Your task to perform on an android device: toggle javascript in the chrome app Image 0: 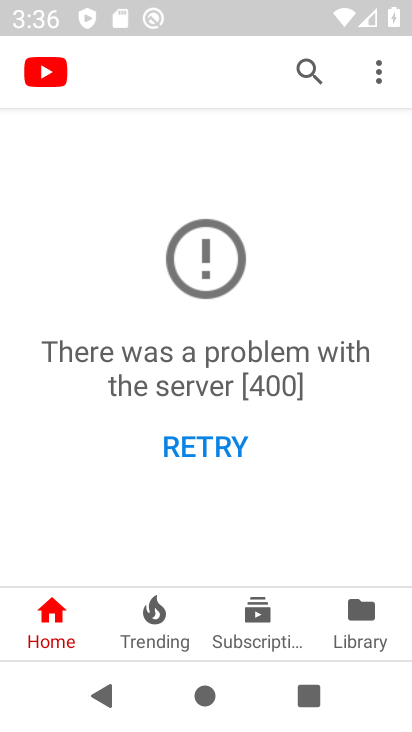
Step 0: press back button
Your task to perform on an android device: toggle javascript in the chrome app Image 1: 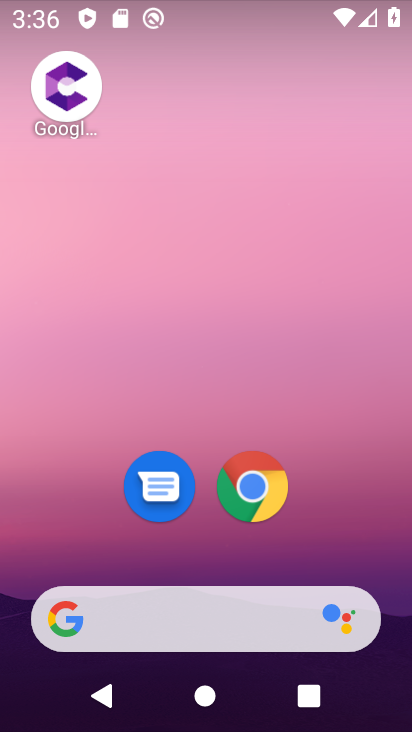
Step 1: click (253, 475)
Your task to perform on an android device: toggle javascript in the chrome app Image 2: 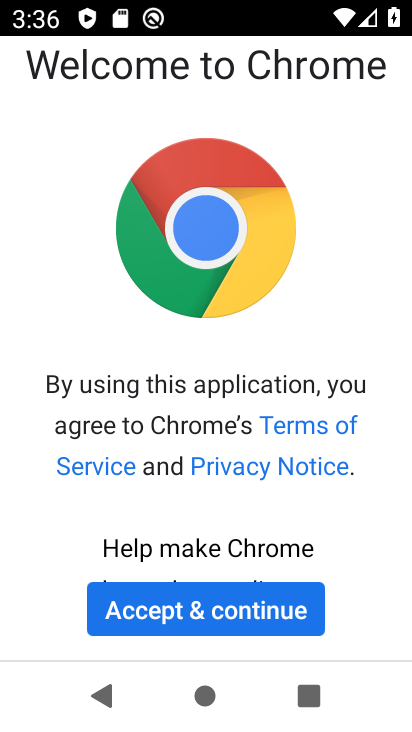
Step 2: click (219, 607)
Your task to perform on an android device: toggle javascript in the chrome app Image 3: 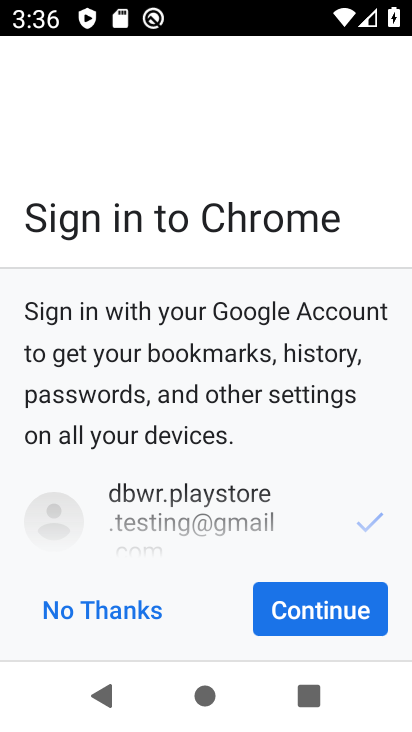
Step 3: click (321, 599)
Your task to perform on an android device: toggle javascript in the chrome app Image 4: 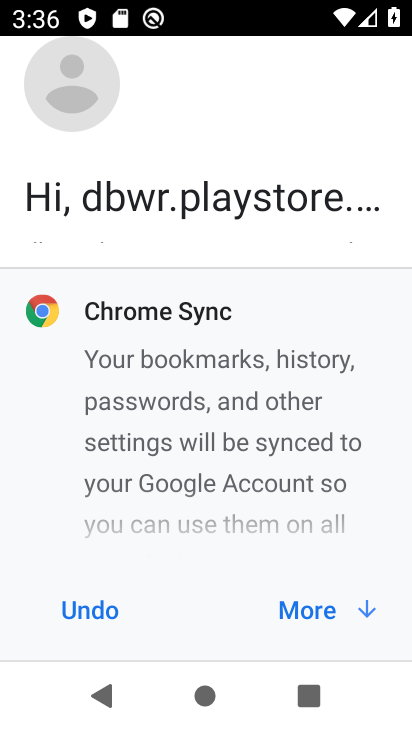
Step 4: click (317, 604)
Your task to perform on an android device: toggle javascript in the chrome app Image 5: 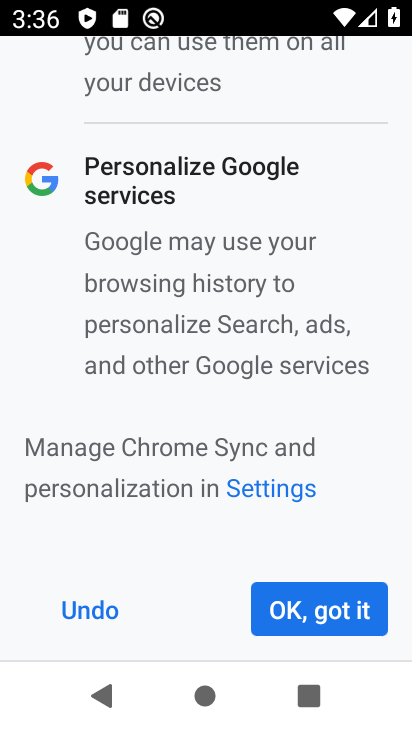
Step 5: click (317, 604)
Your task to perform on an android device: toggle javascript in the chrome app Image 6: 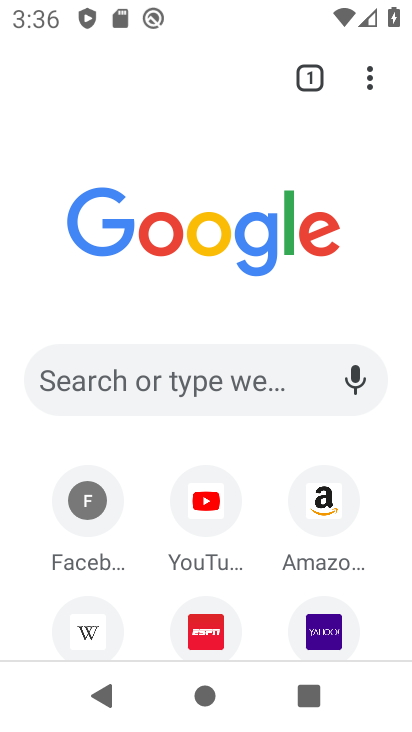
Step 6: drag from (370, 61) to (167, 545)
Your task to perform on an android device: toggle javascript in the chrome app Image 7: 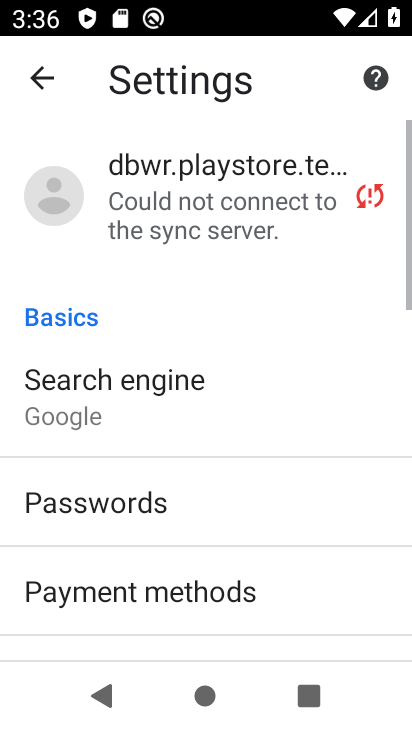
Step 7: drag from (207, 526) to (283, 124)
Your task to perform on an android device: toggle javascript in the chrome app Image 8: 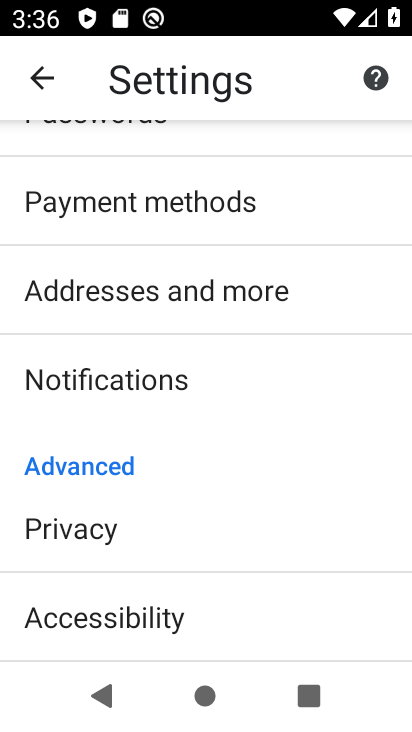
Step 8: drag from (226, 588) to (254, 202)
Your task to perform on an android device: toggle javascript in the chrome app Image 9: 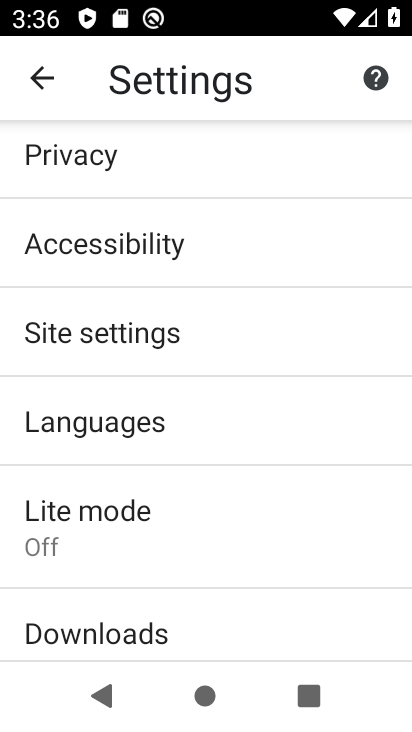
Step 9: drag from (183, 590) to (231, 208)
Your task to perform on an android device: toggle javascript in the chrome app Image 10: 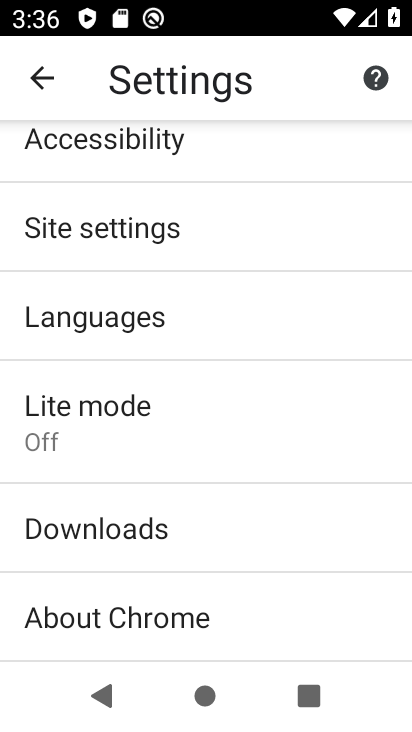
Step 10: click (194, 241)
Your task to perform on an android device: toggle javascript in the chrome app Image 11: 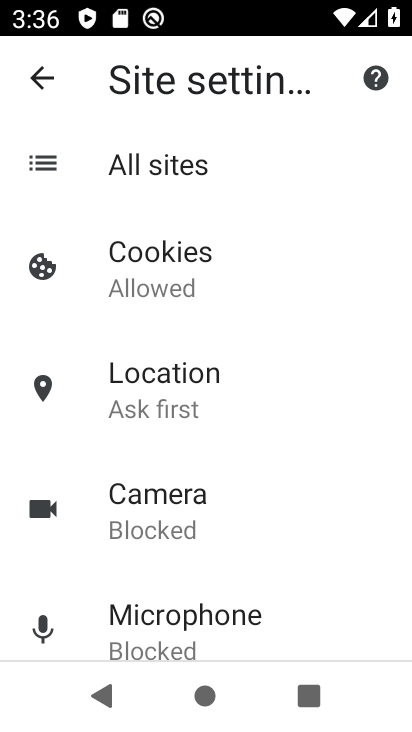
Step 11: drag from (208, 564) to (268, 134)
Your task to perform on an android device: toggle javascript in the chrome app Image 12: 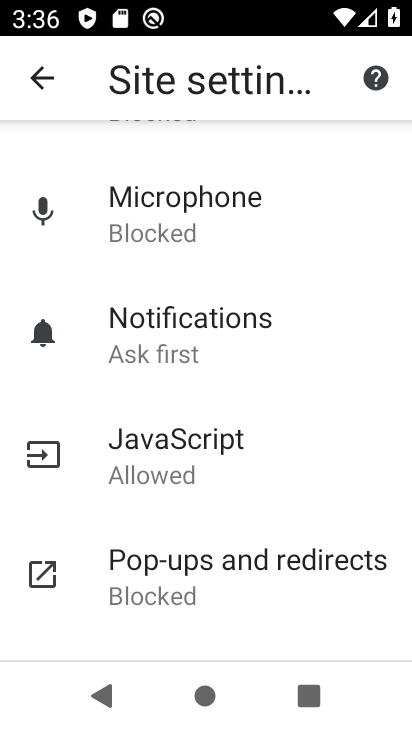
Step 12: drag from (238, 527) to (268, 262)
Your task to perform on an android device: toggle javascript in the chrome app Image 13: 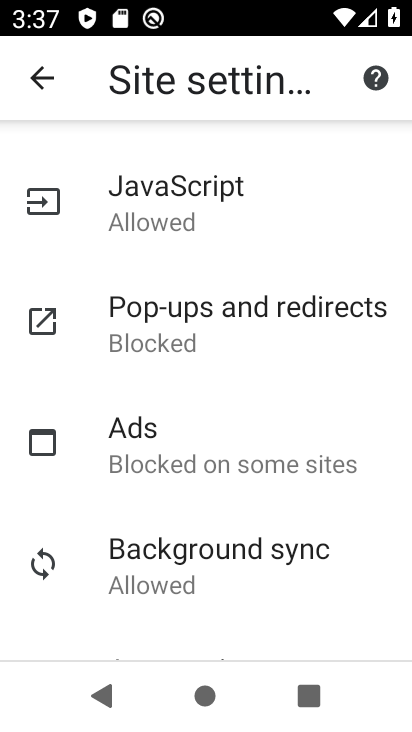
Step 13: drag from (258, 559) to (273, 224)
Your task to perform on an android device: toggle javascript in the chrome app Image 14: 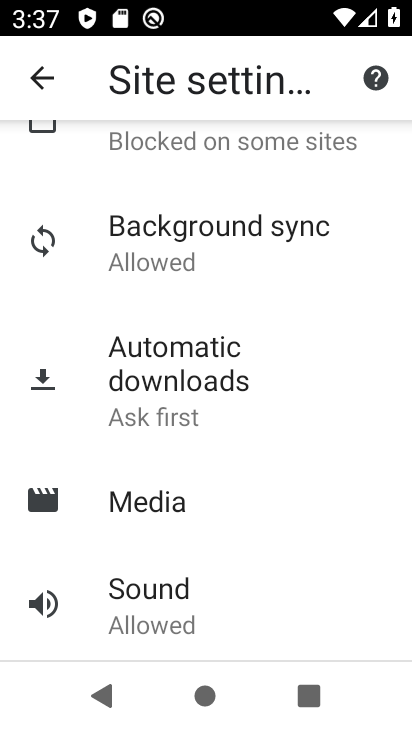
Step 14: drag from (225, 539) to (256, 244)
Your task to perform on an android device: toggle javascript in the chrome app Image 15: 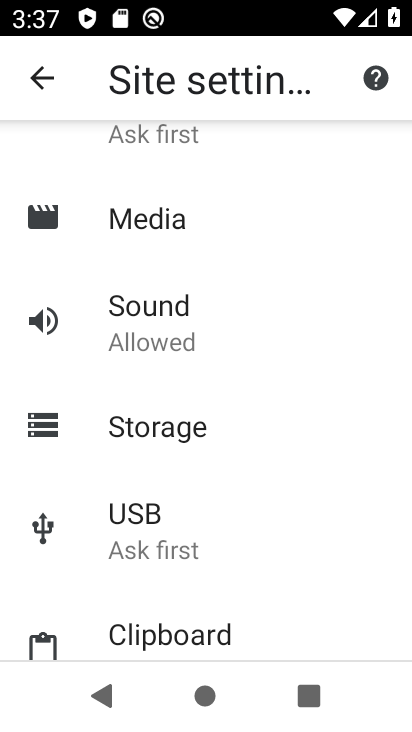
Step 15: drag from (188, 555) to (212, 159)
Your task to perform on an android device: toggle javascript in the chrome app Image 16: 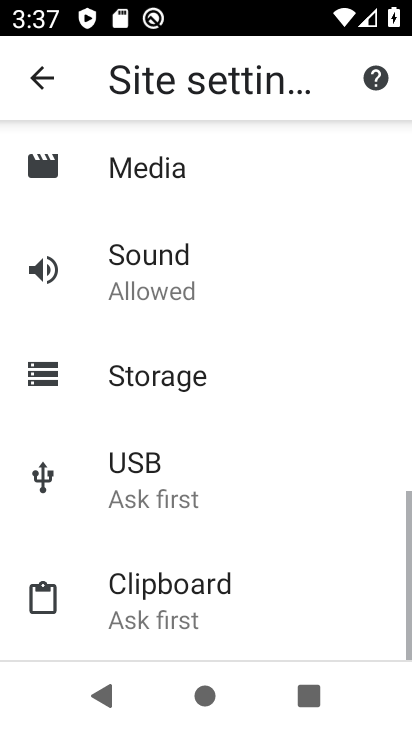
Step 16: drag from (213, 210) to (211, 562)
Your task to perform on an android device: toggle javascript in the chrome app Image 17: 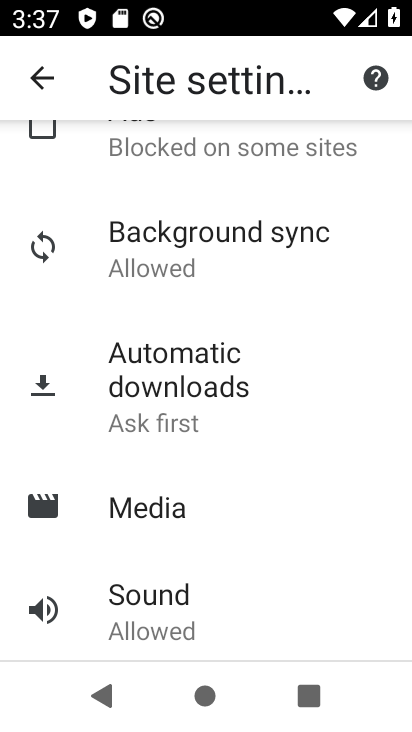
Step 17: drag from (270, 319) to (261, 574)
Your task to perform on an android device: toggle javascript in the chrome app Image 18: 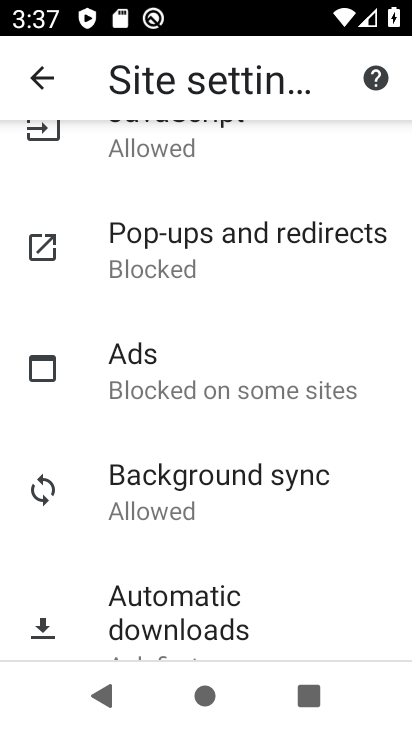
Step 18: drag from (278, 238) to (247, 513)
Your task to perform on an android device: toggle javascript in the chrome app Image 19: 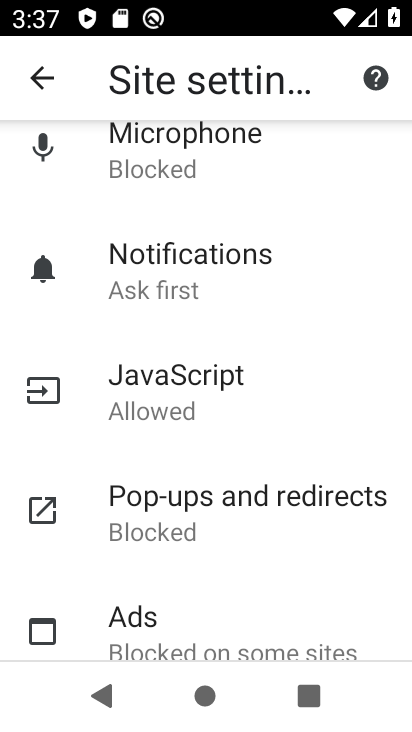
Step 19: click (232, 376)
Your task to perform on an android device: toggle javascript in the chrome app Image 20: 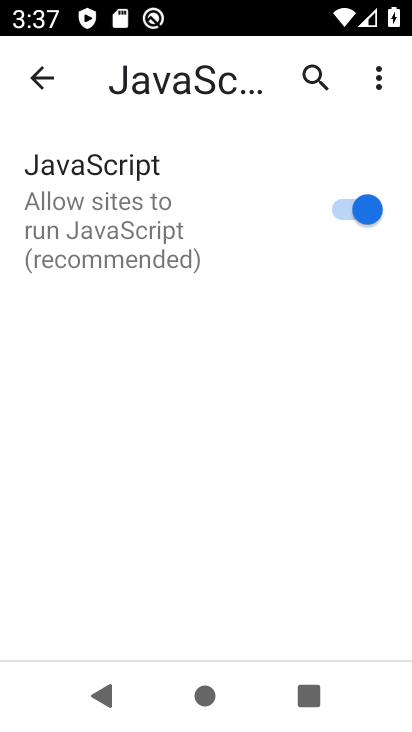
Step 20: click (342, 208)
Your task to perform on an android device: toggle javascript in the chrome app Image 21: 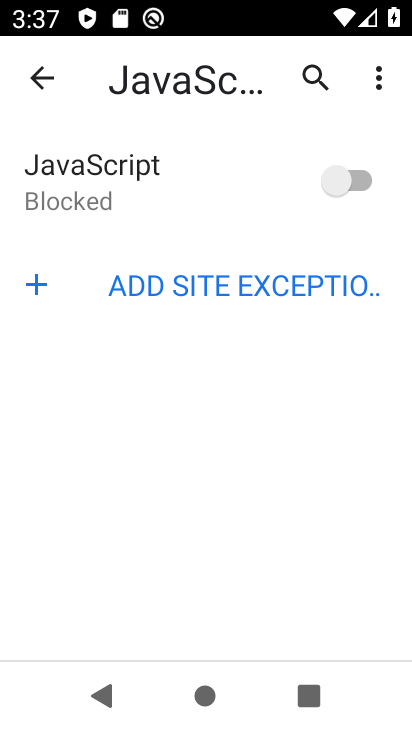
Step 21: task complete